Your task to perform on an android device: toggle data saver in the chrome app Image 0: 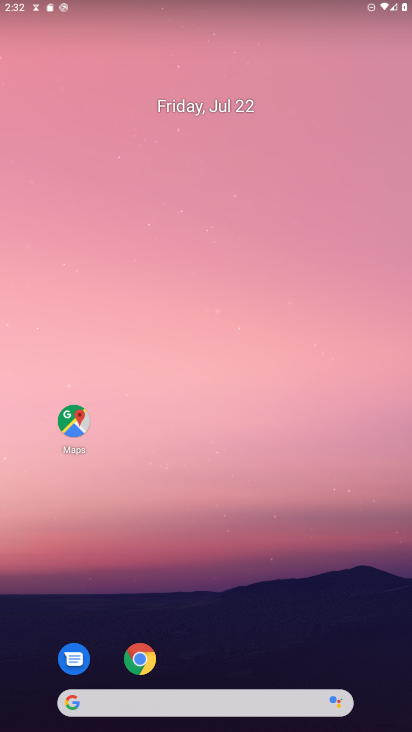
Step 0: drag from (289, 633) to (409, 25)
Your task to perform on an android device: toggle data saver in the chrome app Image 1: 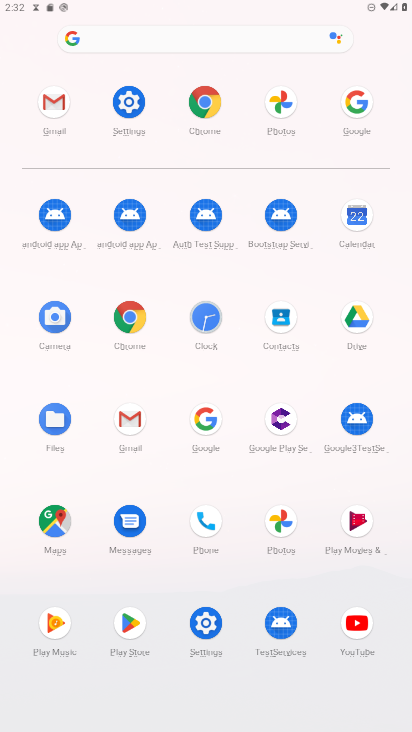
Step 1: click (212, 103)
Your task to perform on an android device: toggle data saver in the chrome app Image 2: 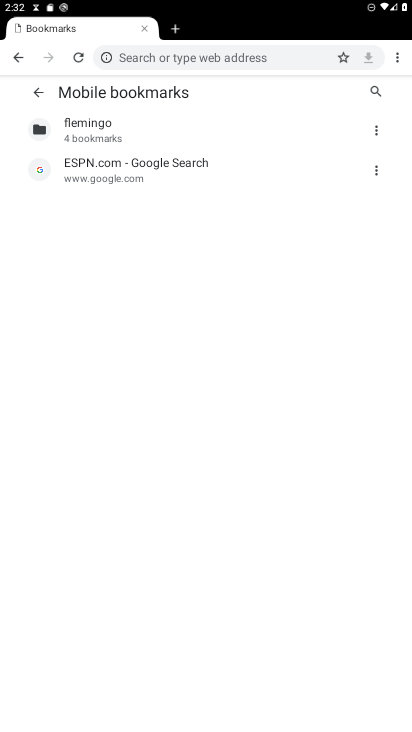
Step 2: drag from (399, 58) to (287, 259)
Your task to perform on an android device: toggle data saver in the chrome app Image 3: 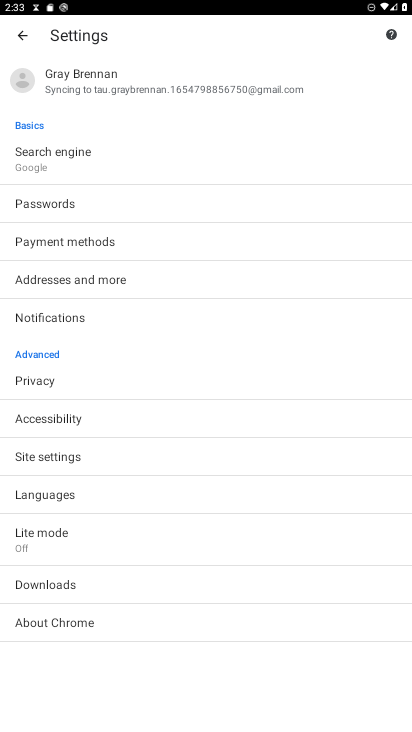
Step 3: click (96, 542)
Your task to perform on an android device: toggle data saver in the chrome app Image 4: 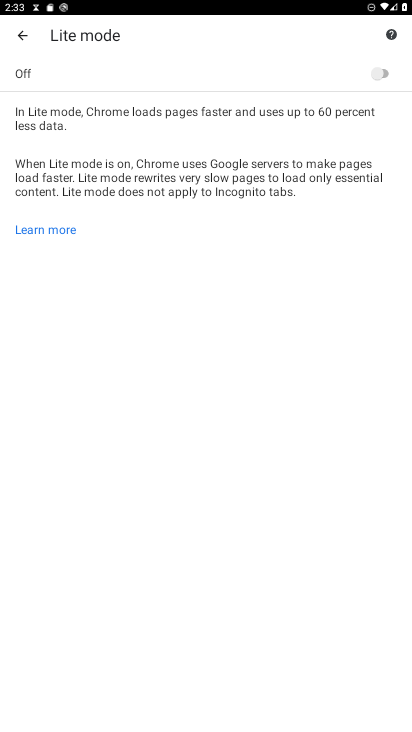
Step 4: click (372, 77)
Your task to perform on an android device: toggle data saver in the chrome app Image 5: 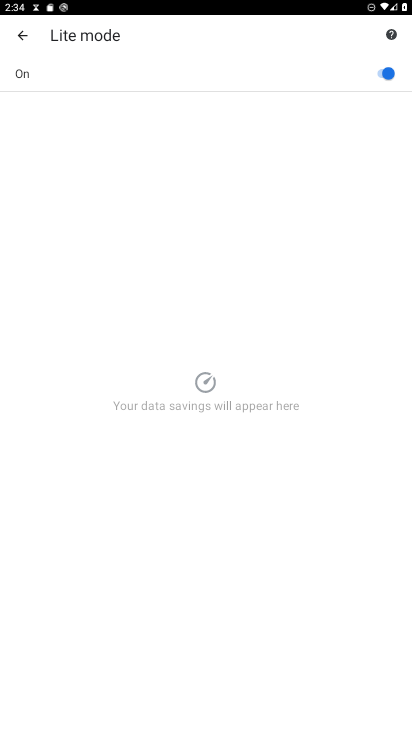
Step 5: task complete